Your task to perform on an android device: change the clock style Image 0: 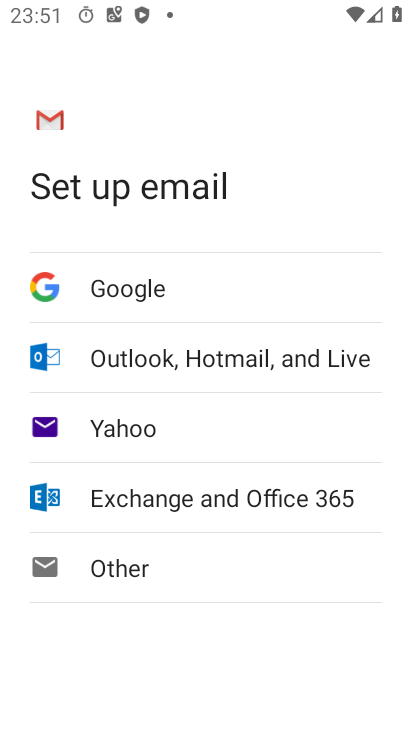
Step 0: press home button
Your task to perform on an android device: change the clock style Image 1: 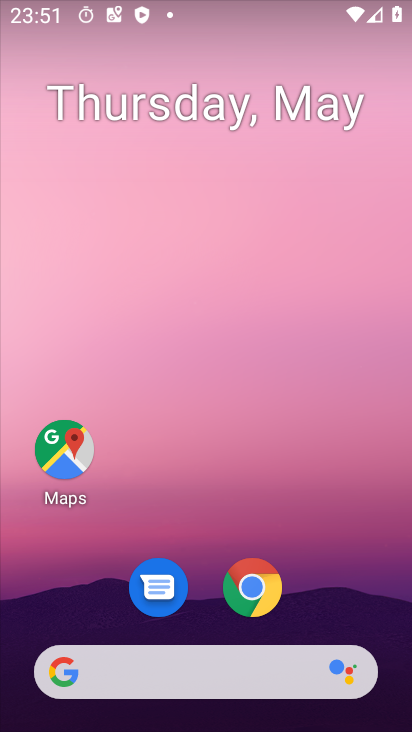
Step 1: drag from (357, 641) to (359, 17)
Your task to perform on an android device: change the clock style Image 2: 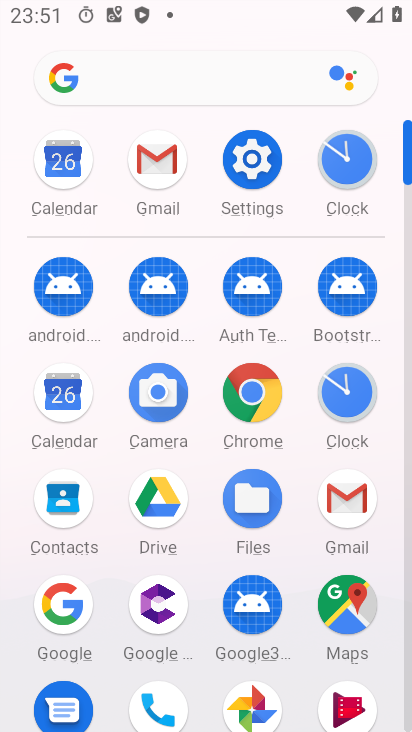
Step 2: click (338, 169)
Your task to perform on an android device: change the clock style Image 3: 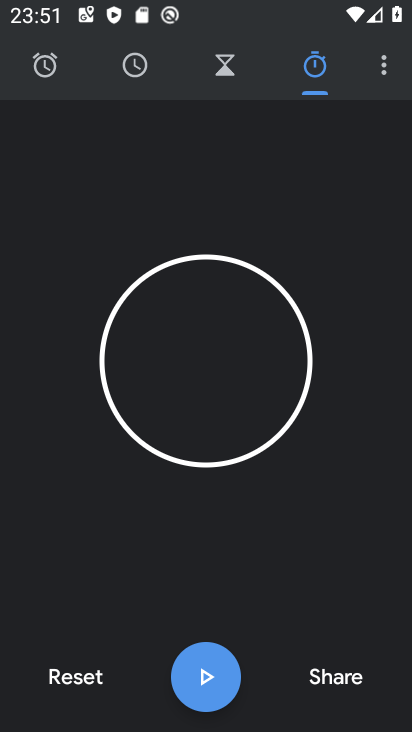
Step 3: click (384, 71)
Your task to perform on an android device: change the clock style Image 4: 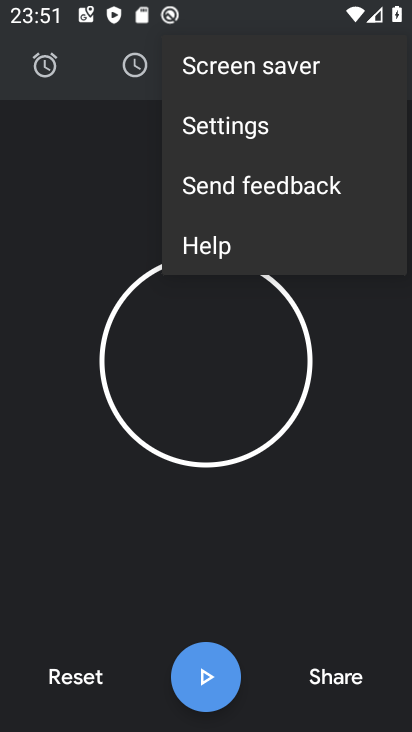
Step 4: click (221, 132)
Your task to perform on an android device: change the clock style Image 5: 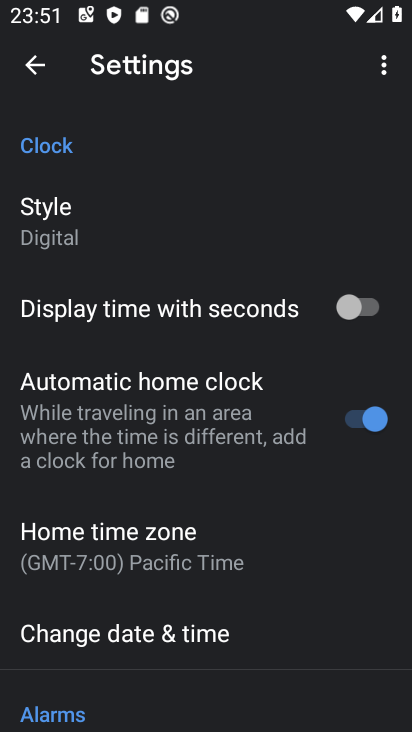
Step 5: click (40, 206)
Your task to perform on an android device: change the clock style Image 6: 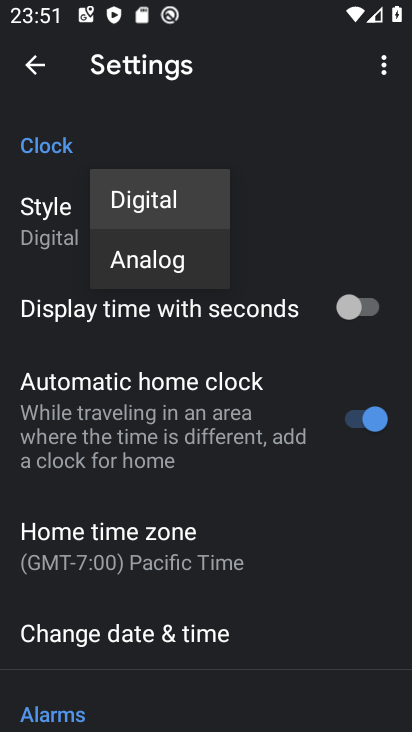
Step 6: click (130, 261)
Your task to perform on an android device: change the clock style Image 7: 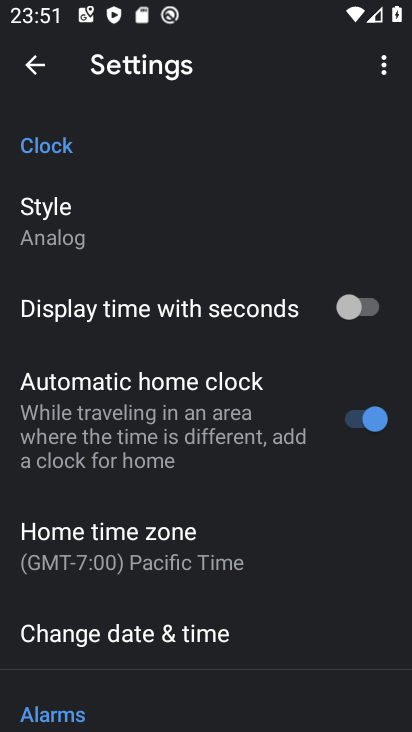
Step 7: task complete